Your task to perform on an android device: Show me the alarms in the clock app Image 0: 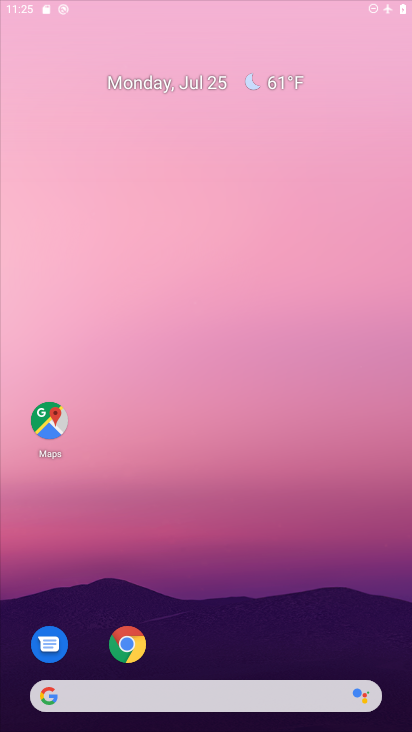
Step 0: click (166, 244)
Your task to perform on an android device: Show me the alarms in the clock app Image 1: 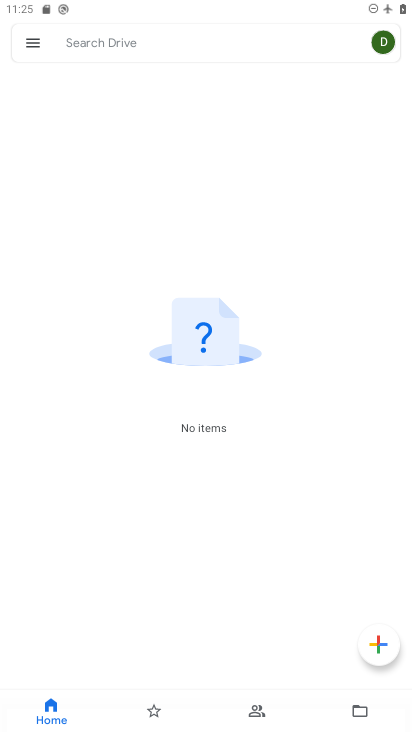
Step 1: press home button
Your task to perform on an android device: Show me the alarms in the clock app Image 2: 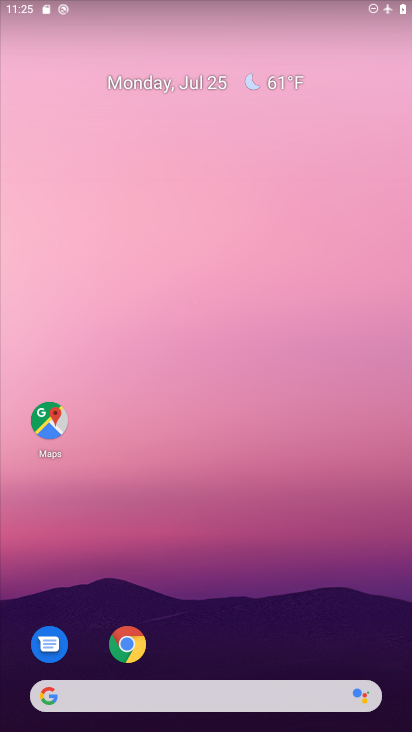
Step 2: drag from (190, 617) to (210, 211)
Your task to perform on an android device: Show me the alarms in the clock app Image 3: 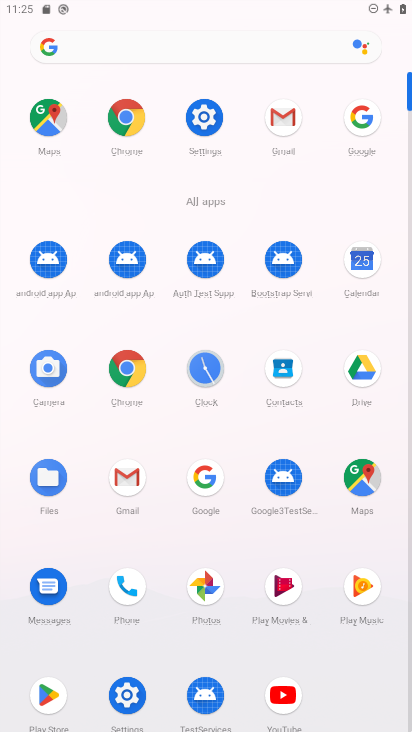
Step 3: click (200, 365)
Your task to perform on an android device: Show me the alarms in the clock app Image 4: 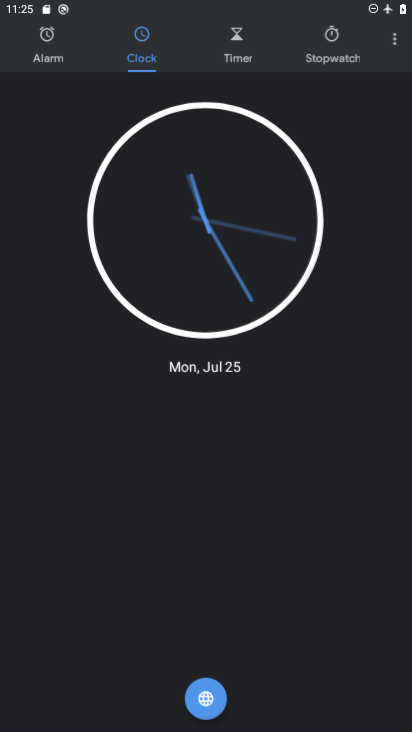
Step 4: click (51, 41)
Your task to perform on an android device: Show me the alarms in the clock app Image 5: 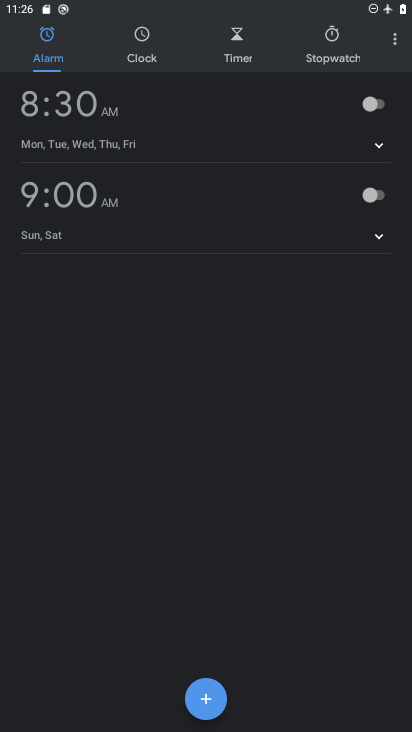
Step 5: task complete